Your task to perform on an android device: What is the news today? Image 0: 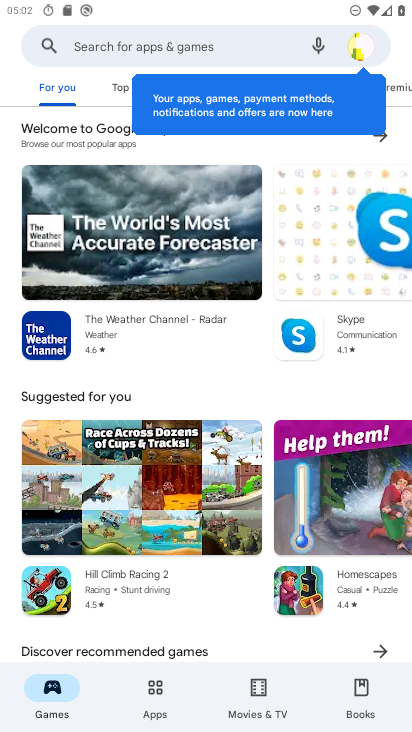
Step 0: press home button
Your task to perform on an android device: What is the news today? Image 1: 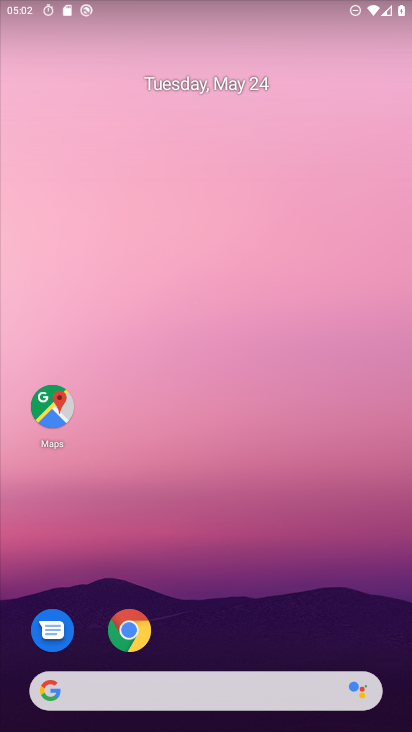
Step 1: click (134, 636)
Your task to perform on an android device: What is the news today? Image 2: 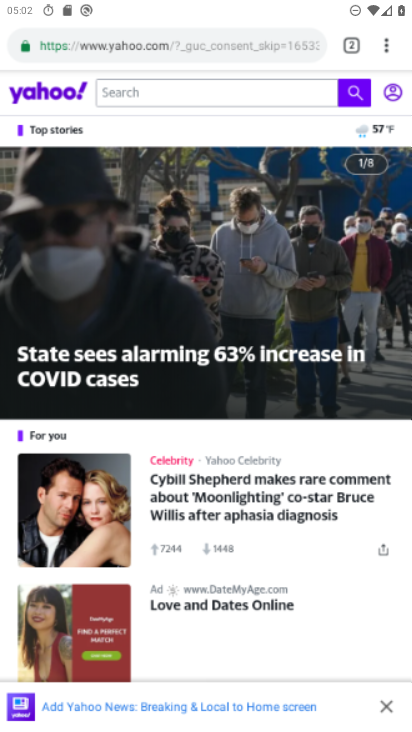
Step 2: click (134, 636)
Your task to perform on an android device: What is the news today? Image 3: 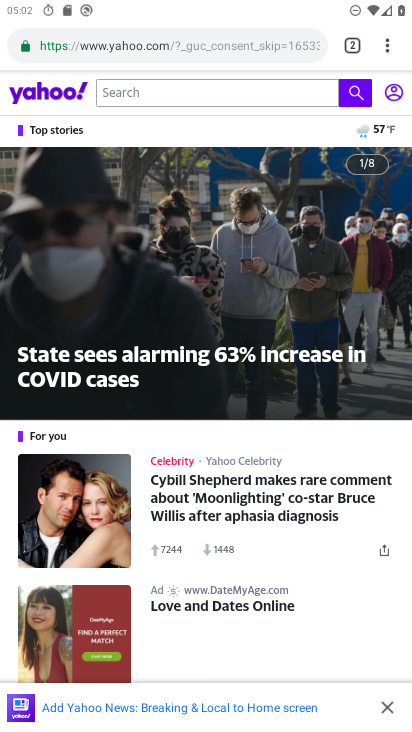
Step 3: task complete